Your task to perform on an android device: Go to settings Image 0: 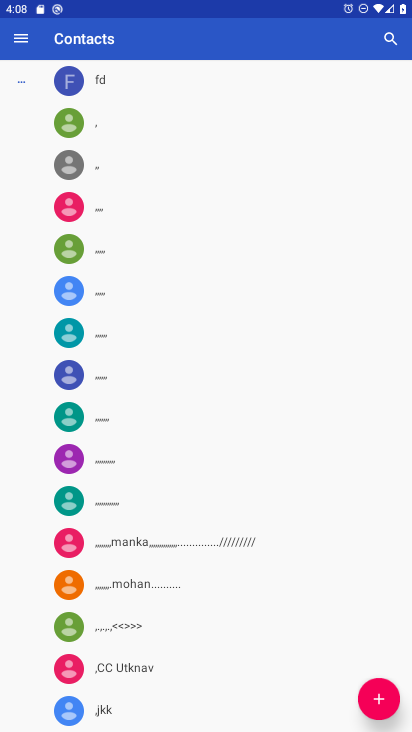
Step 0: press home button
Your task to perform on an android device: Go to settings Image 1: 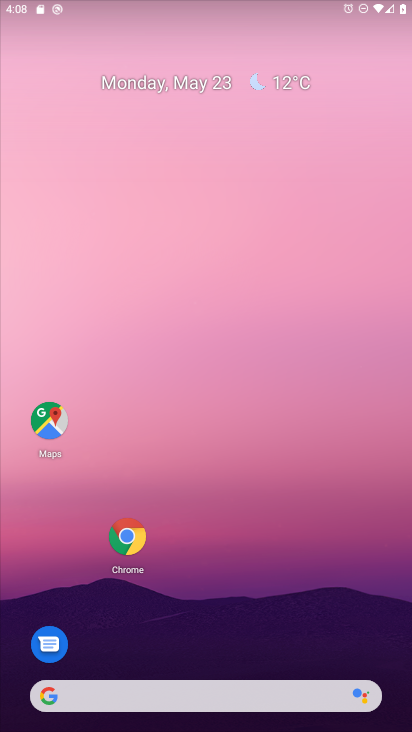
Step 1: drag from (204, 643) to (280, 156)
Your task to perform on an android device: Go to settings Image 2: 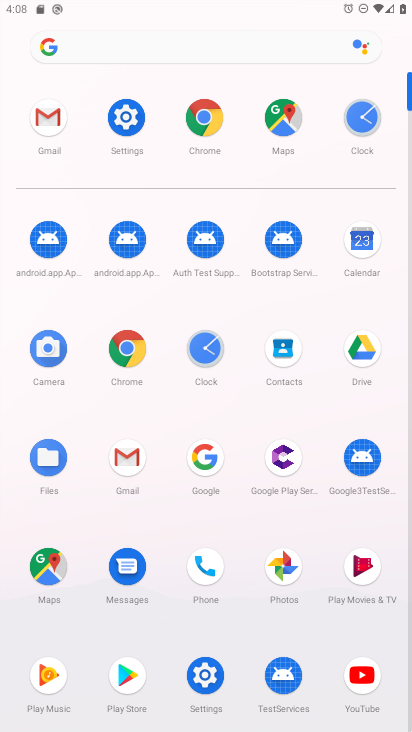
Step 2: click (134, 119)
Your task to perform on an android device: Go to settings Image 3: 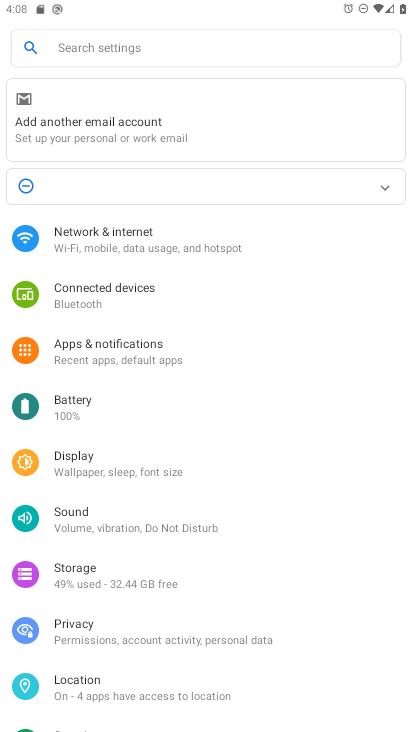
Step 3: task complete